Your task to perform on an android device: Show me popular games on the Play Store Image 0: 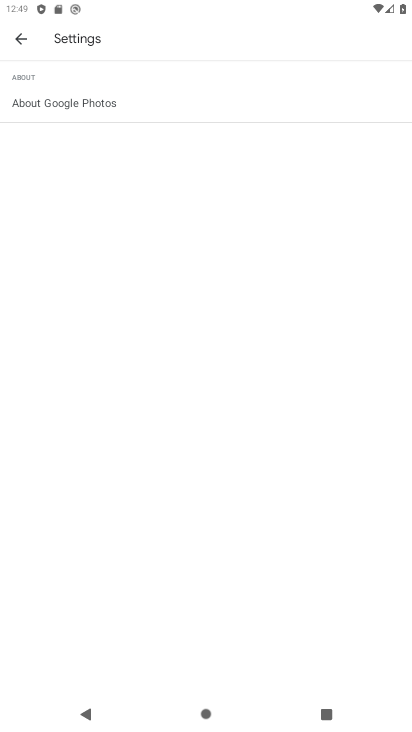
Step 0: press home button
Your task to perform on an android device: Show me popular games on the Play Store Image 1: 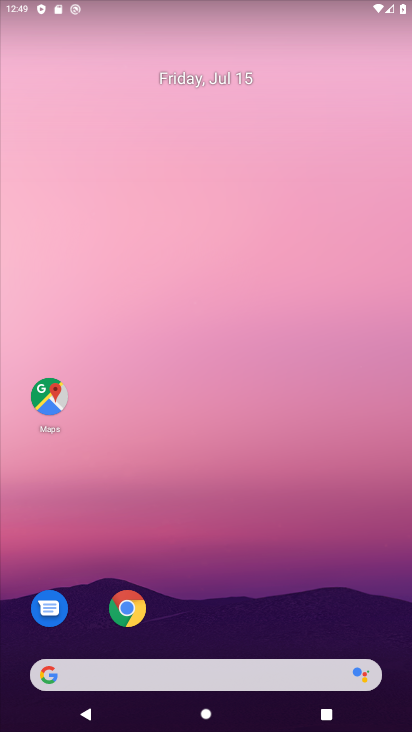
Step 1: drag from (255, 612) to (319, 148)
Your task to perform on an android device: Show me popular games on the Play Store Image 2: 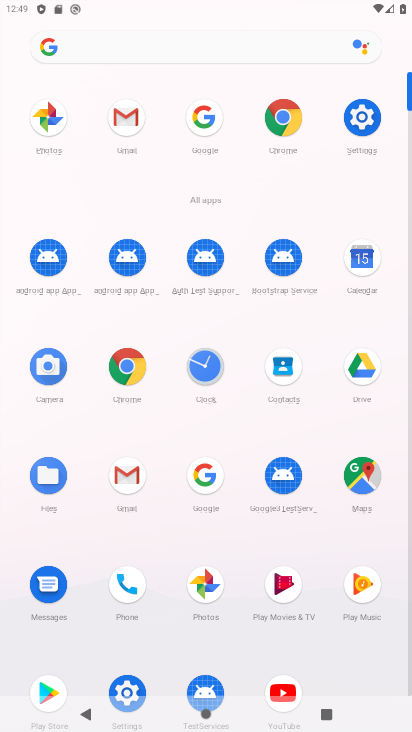
Step 2: click (50, 679)
Your task to perform on an android device: Show me popular games on the Play Store Image 3: 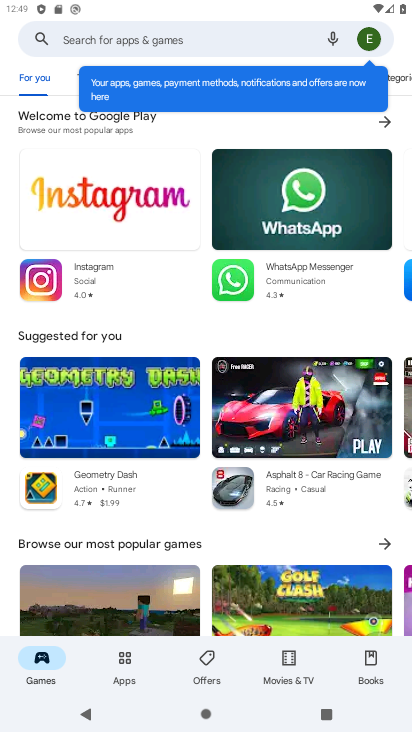
Step 3: click (56, 76)
Your task to perform on an android device: Show me popular games on the Play Store Image 4: 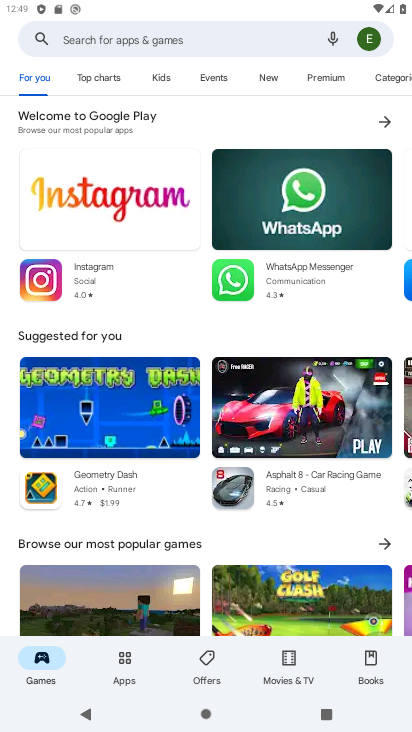
Step 4: click (76, 84)
Your task to perform on an android device: Show me popular games on the Play Store Image 5: 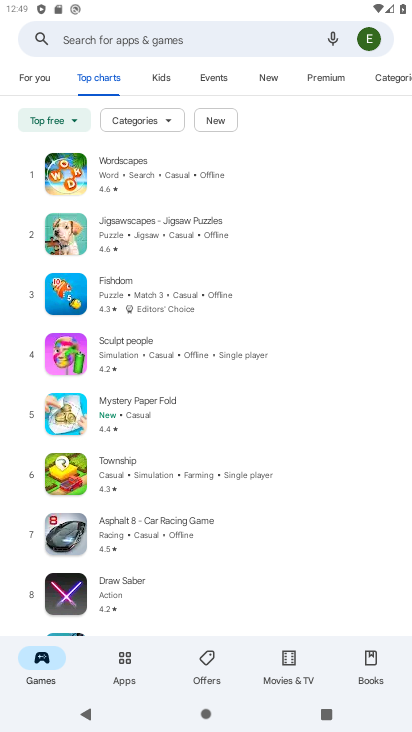
Step 5: task complete